Your task to perform on an android device: find photos in the google photos app Image 0: 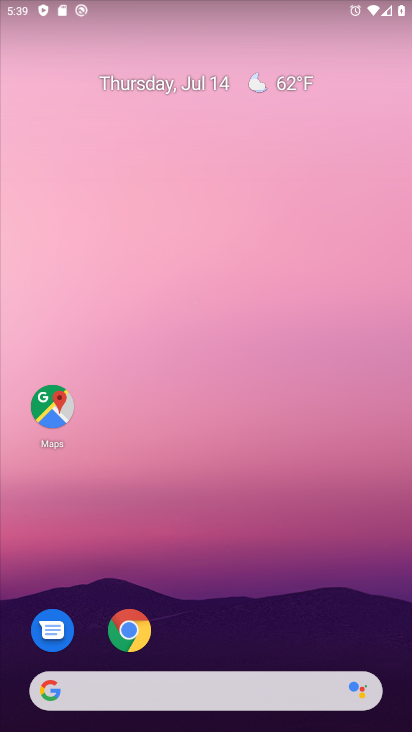
Step 0: drag from (257, 595) to (227, 85)
Your task to perform on an android device: find photos in the google photos app Image 1: 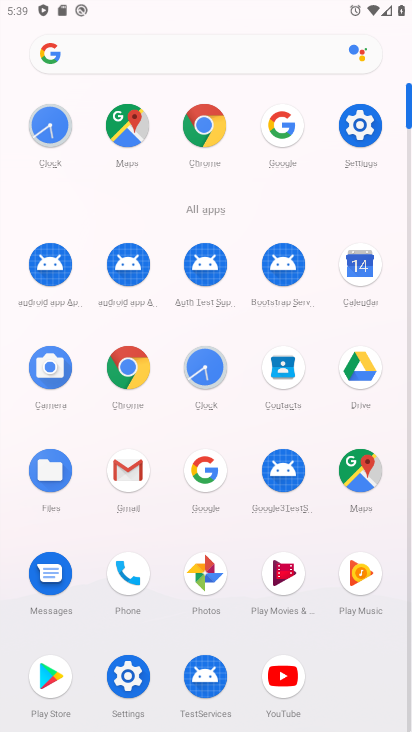
Step 1: click (217, 578)
Your task to perform on an android device: find photos in the google photos app Image 2: 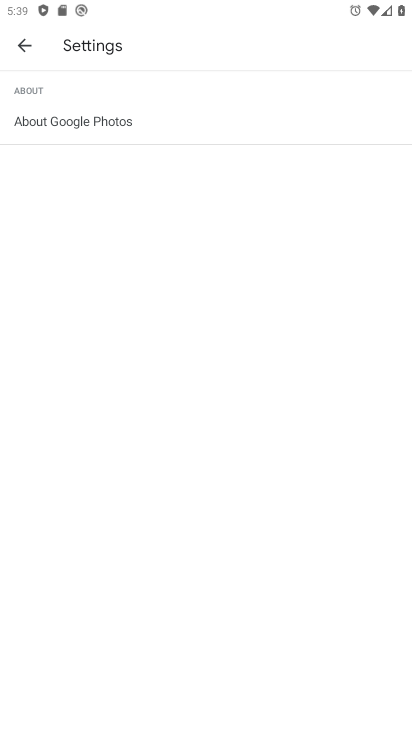
Step 2: click (35, 40)
Your task to perform on an android device: find photos in the google photos app Image 3: 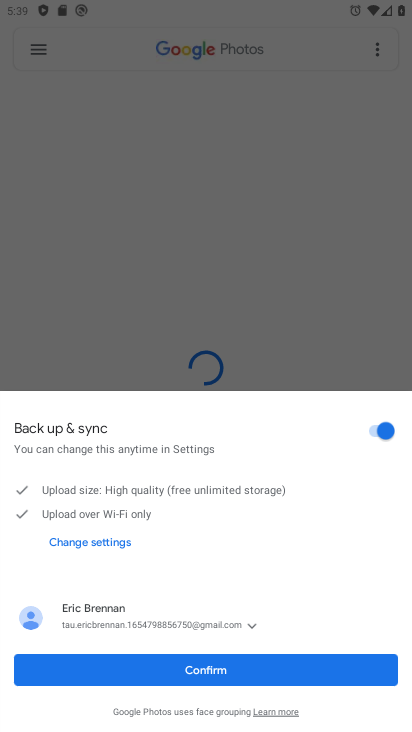
Step 3: task complete